Your task to perform on an android device: Is it going to rain today? Image 0: 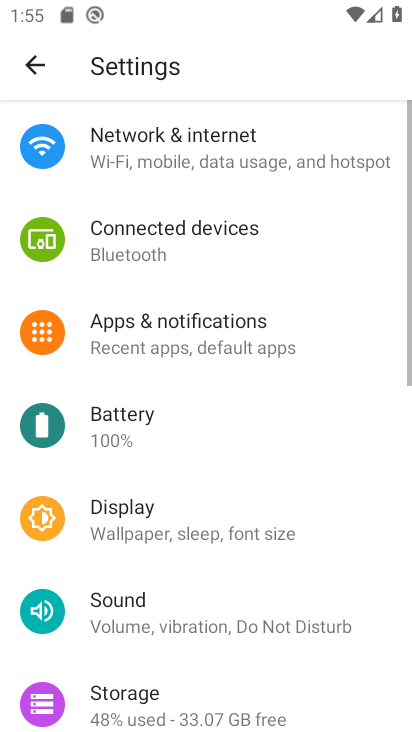
Step 0: press home button
Your task to perform on an android device: Is it going to rain today? Image 1: 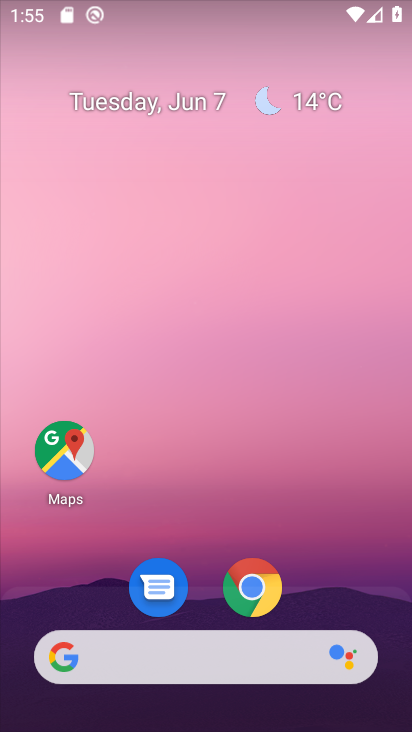
Step 1: click (277, 84)
Your task to perform on an android device: Is it going to rain today? Image 2: 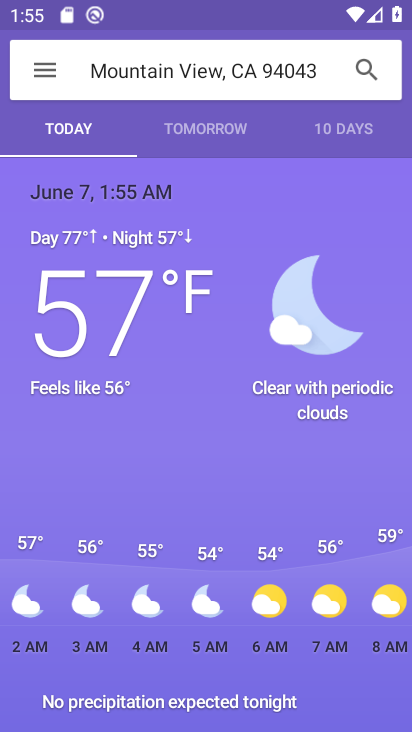
Step 2: task complete